Your task to perform on an android device: Open settings on Google Maps Image 0: 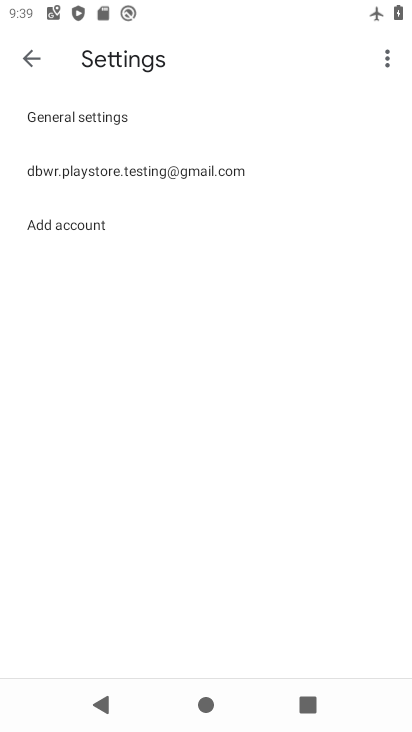
Step 0: press home button
Your task to perform on an android device: Open settings on Google Maps Image 1: 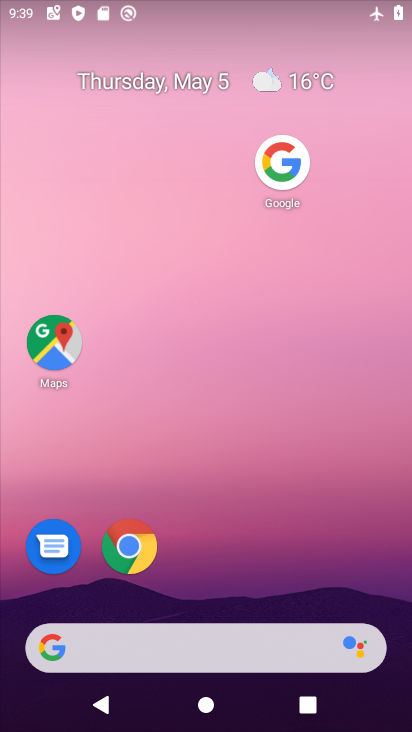
Step 1: drag from (189, 655) to (297, 205)
Your task to perform on an android device: Open settings on Google Maps Image 2: 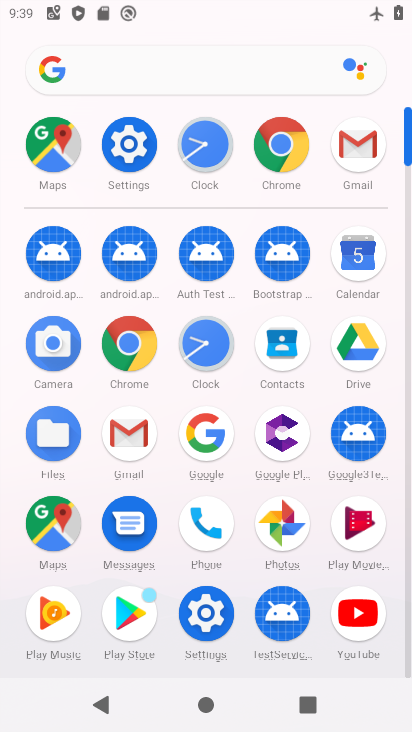
Step 2: click (48, 158)
Your task to perform on an android device: Open settings on Google Maps Image 3: 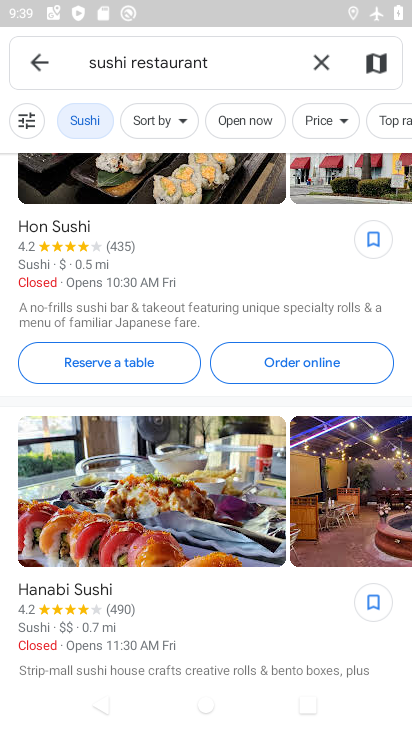
Step 3: click (35, 65)
Your task to perform on an android device: Open settings on Google Maps Image 4: 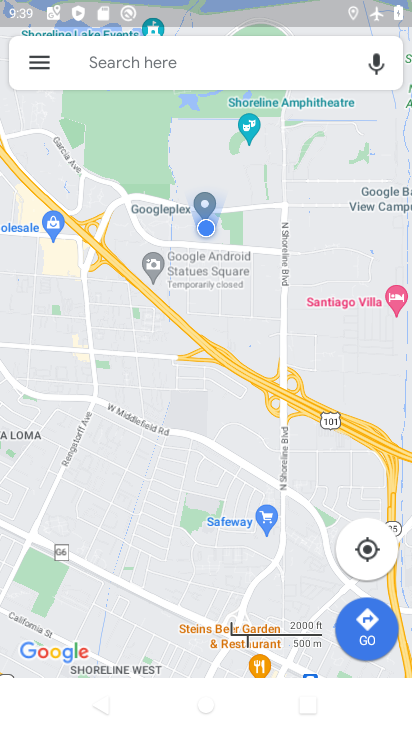
Step 4: click (35, 65)
Your task to perform on an android device: Open settings on Google Maps Image 5: 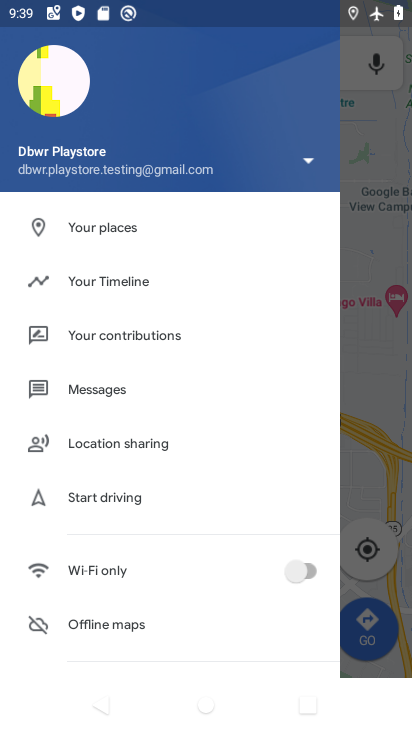
Step 5: drag from (160, 586) to (254, 80)
Your task to perform on an android device: Open settings on Google Maps Image 6: 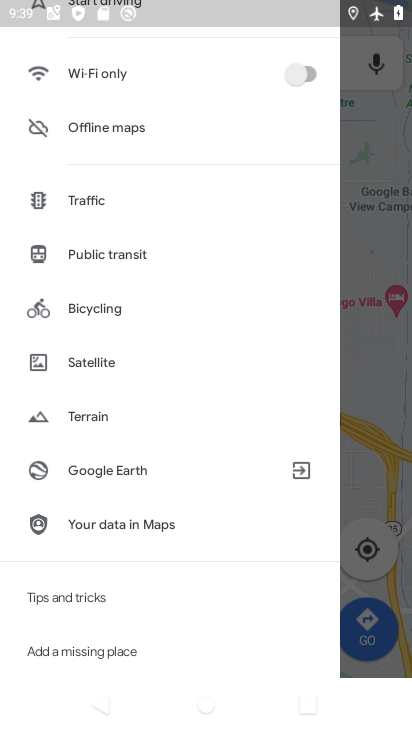
Step 6: drag from (137, 581) to (176, 209)
Your task to perform on an android device: Open settings on Google Maps Image 7: 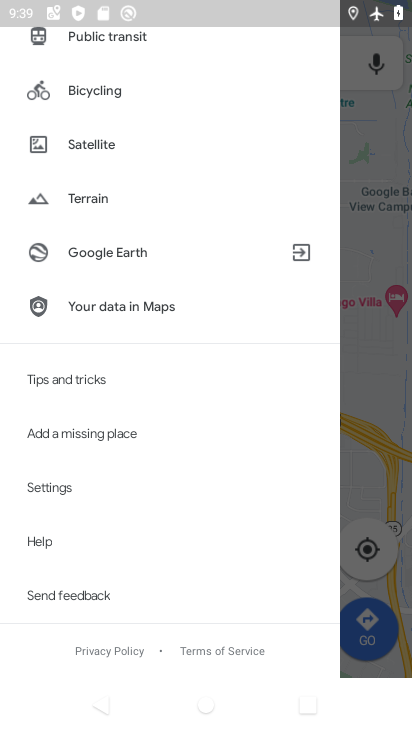
Step 7: click (52, 487)
Your task to perform on an android device: Open settings on Google Maps Image 8: 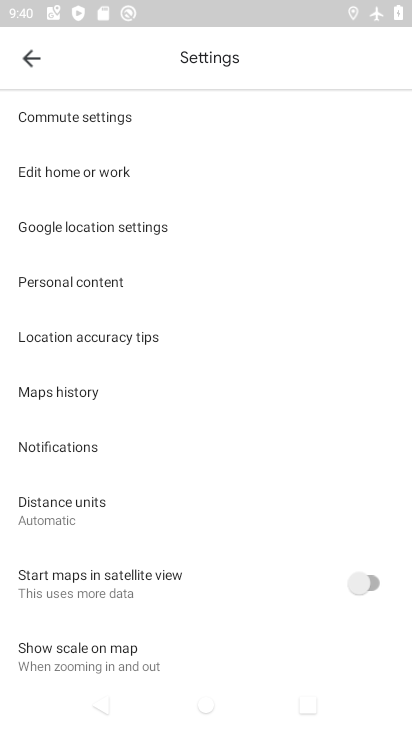
Step 8: task complete